Your task to perform on an android device: toggle pop-ups in chrome Image 0: 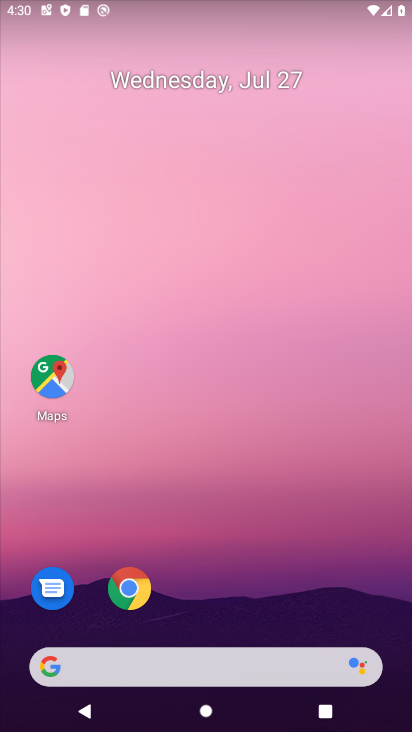
Step 0: click (126, 589)
Your task to perform on an android device: toggle pop-ups in chrome Image 1: 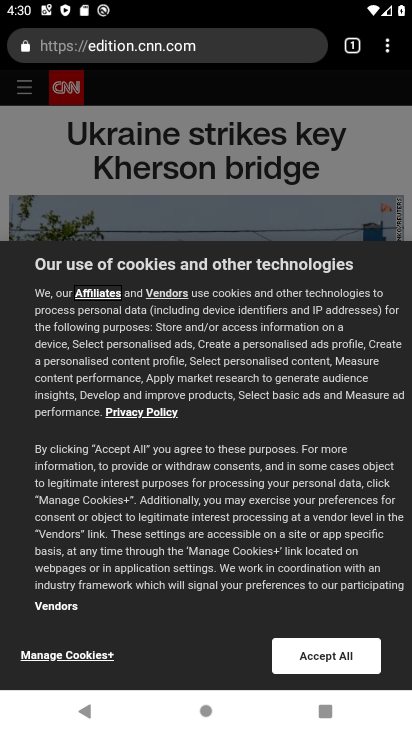
Step 1: click (386, 54)
Your task to perform on an android device: toggle pop-ups in chrome Image 2: 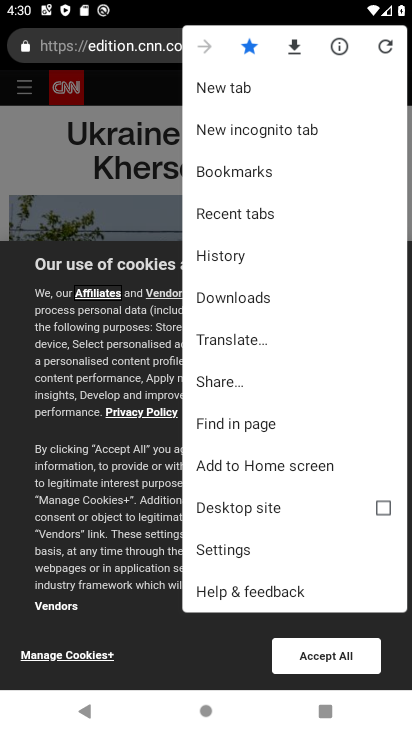
Step 2: click (223, 549)
Your task to perform on an android device: toggle pop-ups in chrome Image 3: 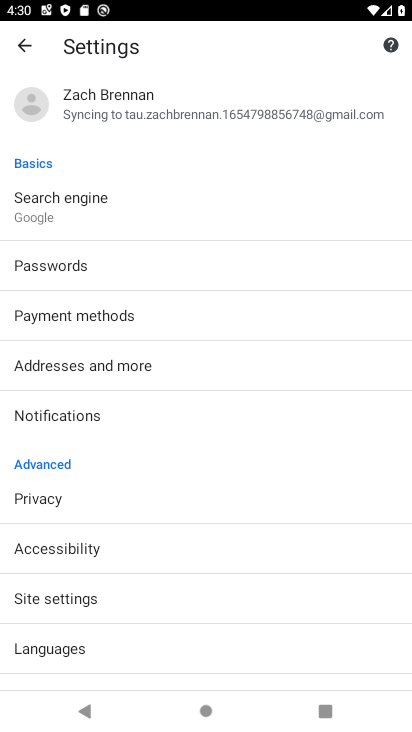
Step 3: click (59, 602)
Your task to perform on an android device: toggle pop-ups in chrome Image 4: 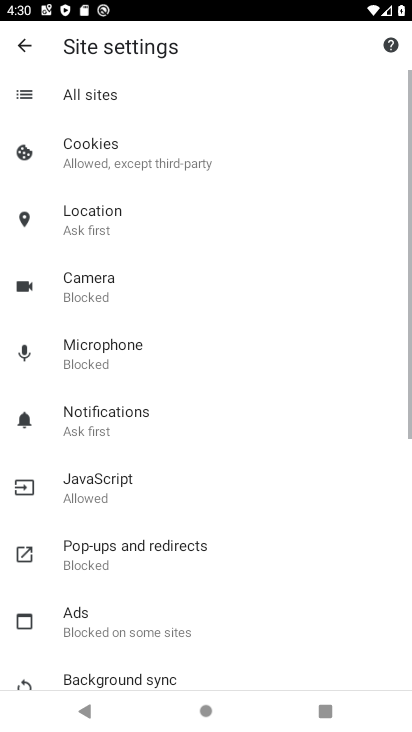
Step 4: click (110, 548)
Your task to perform on an android device: toggle pop-ups in chrome Image 5: 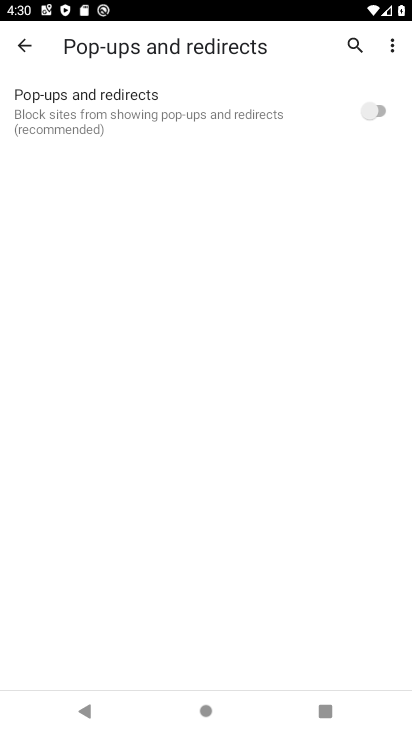
Step 5: click (381, 113)
Your task to perform on an android device: toggle pop-ups in chrome Image 6: 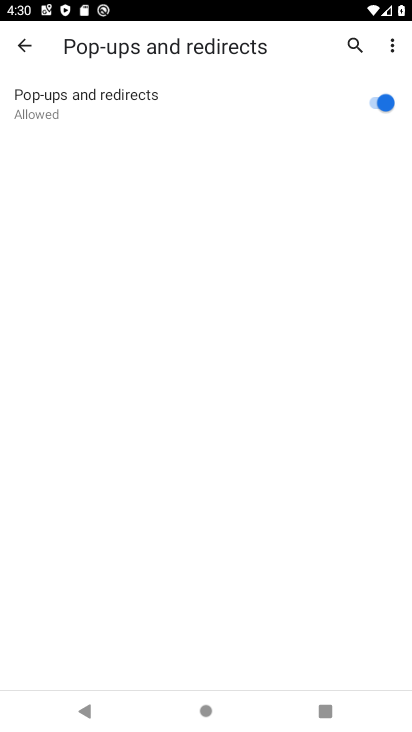
Step 6: task complete